Your task to perform on an android device: Search for Italian restaurants on Maps Image 0: 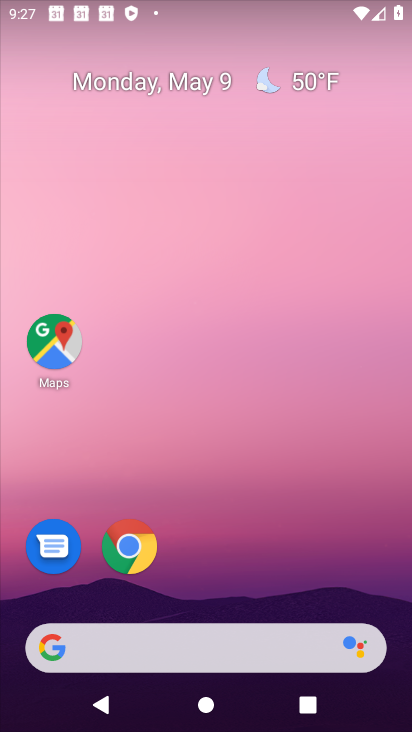
Step 0: click (54, 340)
Your task to perform on an android device: Search for Italian restaurants on Maps Image 1: 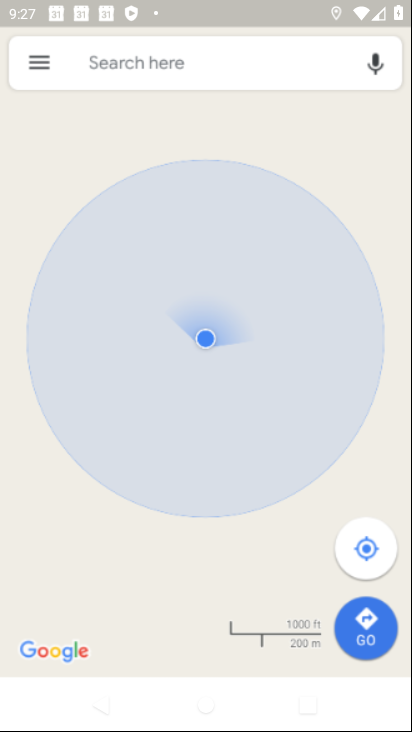
Step 1: click (175, 63)
Your task to perform on an android device: Search for Italian restaurants on Maps Image 2: 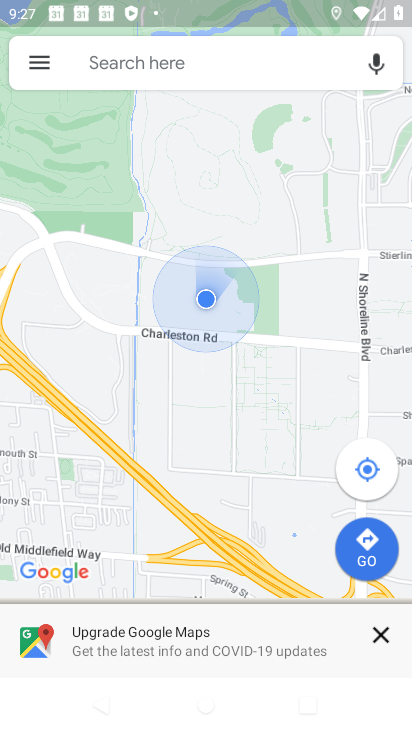
Step 2: click (175, 63)
Your task to perform on an android device: Search for Italian restaurants on Maps Image 3: 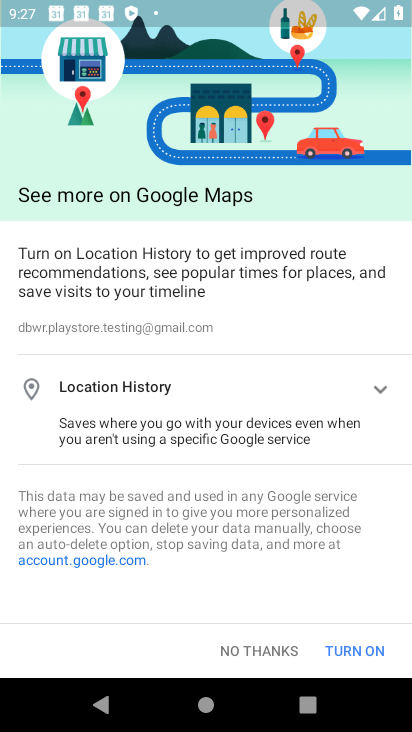
Step 3: click (287, 643)
Your task to perform on an android device: Search for Italian restaurants on Maps Image 4: 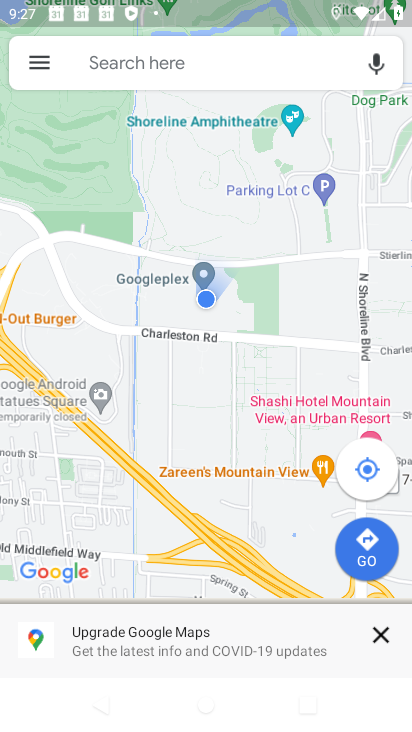
Step 4: click (231, 50)
Your task to perform on an android device: Search for Italian restaurants on Maps Image 5: 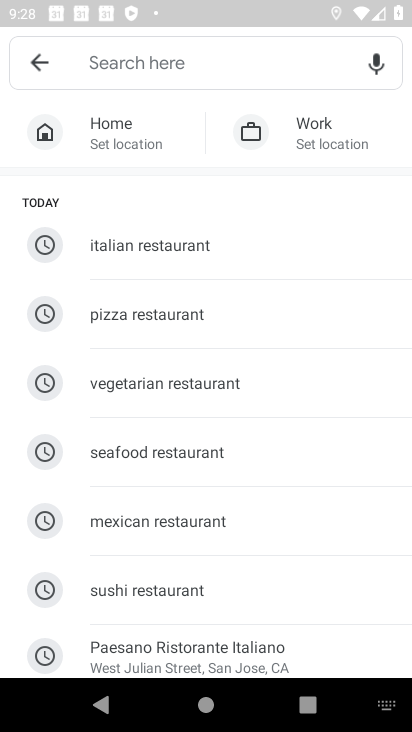
Step 5: click (203, 64)
Your task to perform on an android device: Search for Italian restaurants on Maps Image 6: 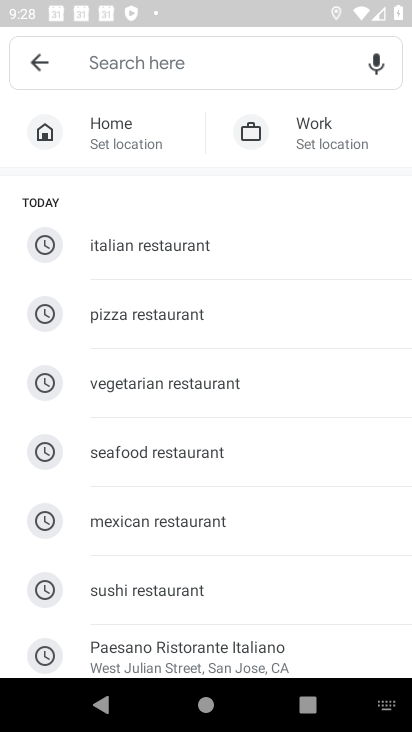
Step 6: type " Italian restaurants "
Your task to perform on an android device: Search for Italian restaurants on Maps Image 7: 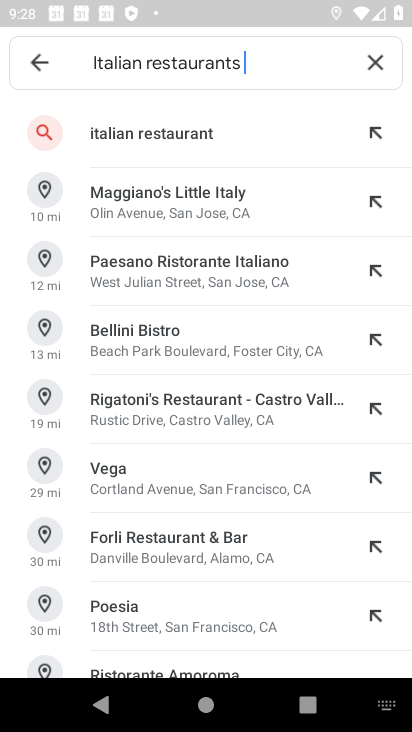
Step 7: click (151, 126)
Your task to perform on an android device: Search for Italian restaurants on Maps Image 8: 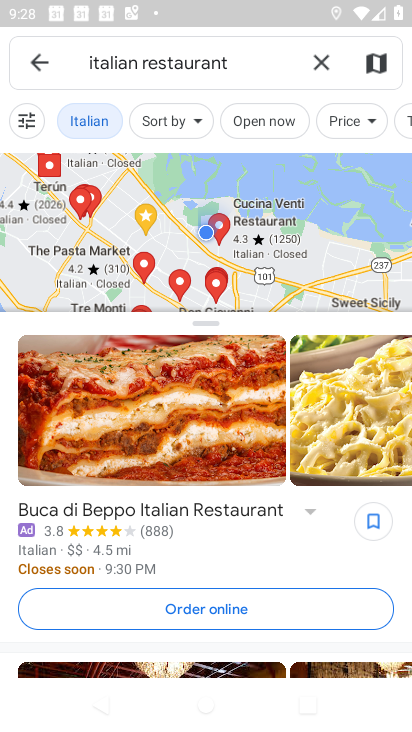
Step 8: task complete